Your task to perform on an android device: turn off notifications in google photos Image 0: 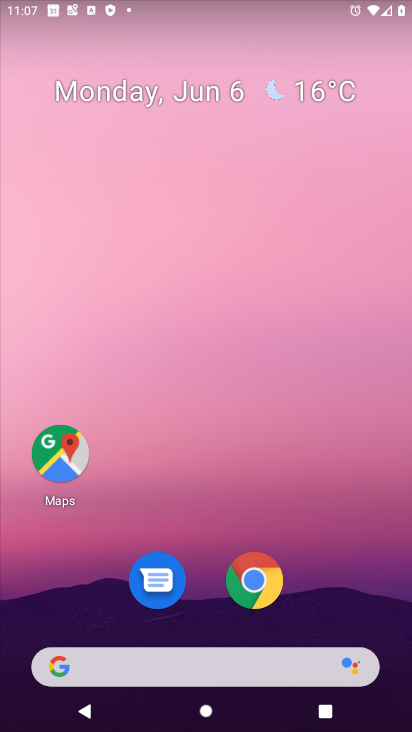
Step 0: drag from (305, 603) to (214, 2)
Your task to perform on an android device: turn off notifications in google photos Image 1: 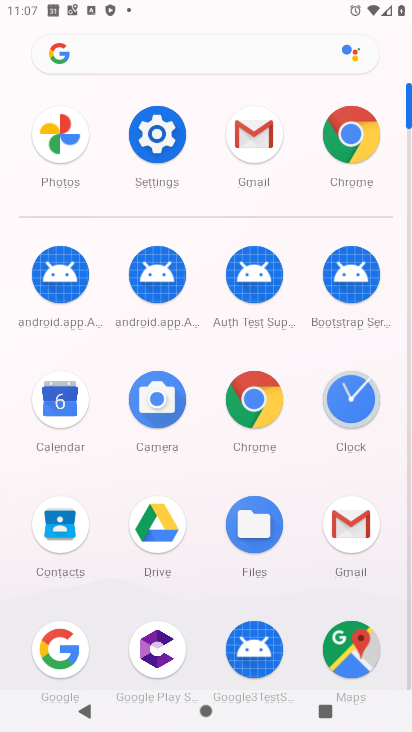
Step 1: click (68, 140)
Your task to perform on an android device: turn off notifications in google photos Image 2: 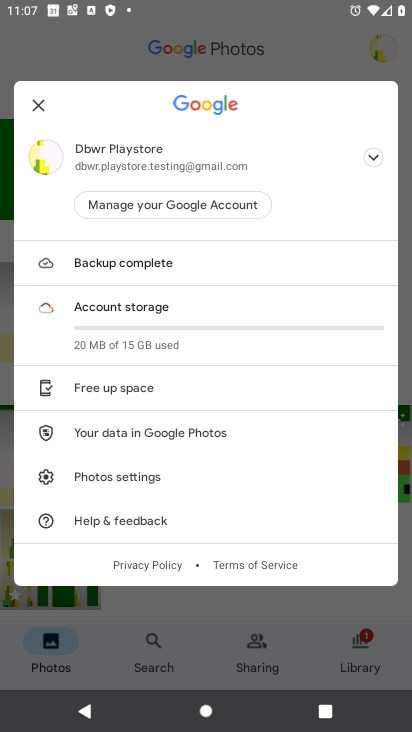
Step 2: click (139, 484)
Your task to perform on an android device: turn off notifications in google photos Image 3: 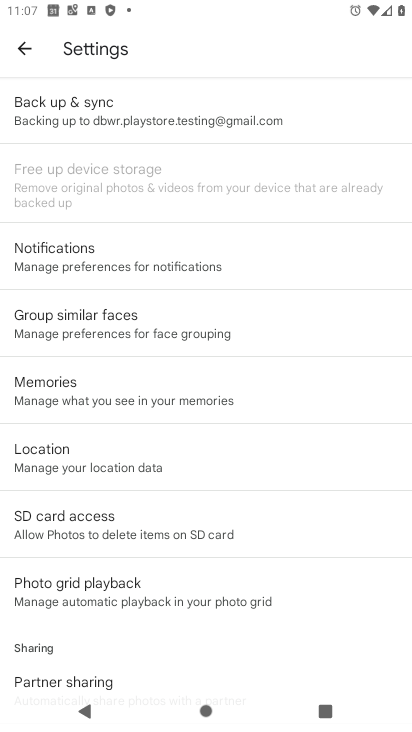
Step 3: click (70, 271)
Your task to perform on an android device: turn off notifications in google photos Image 4: 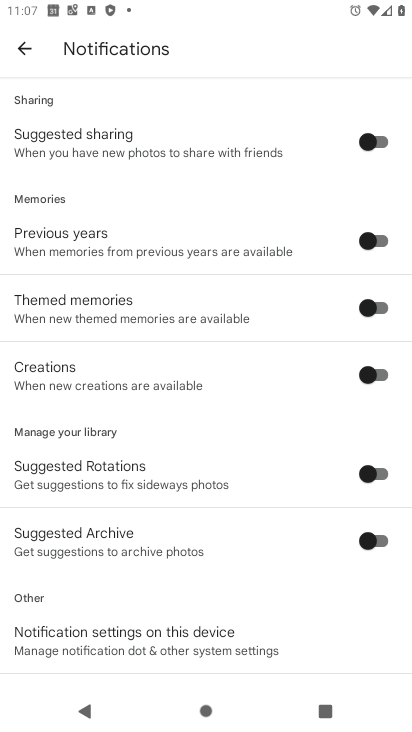
Step 4: drag from (150, 541) to (172, 150)
Your task to perform on an android device: turn off notifications in google photos Image 5: 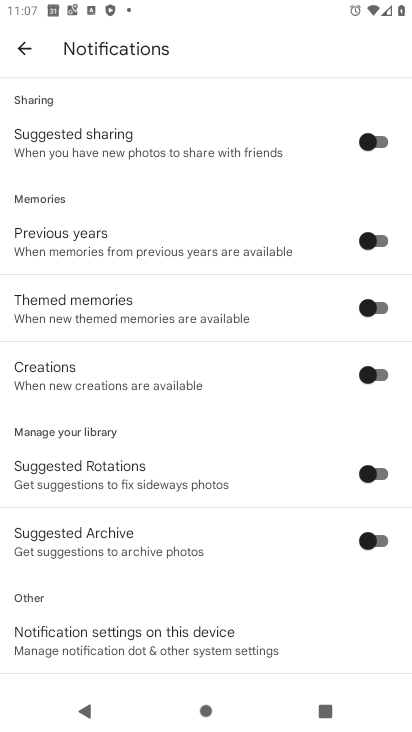
Step 5: click (107, 637)
Your task to perform on an android device: turn off notifications in google photos Image 6: 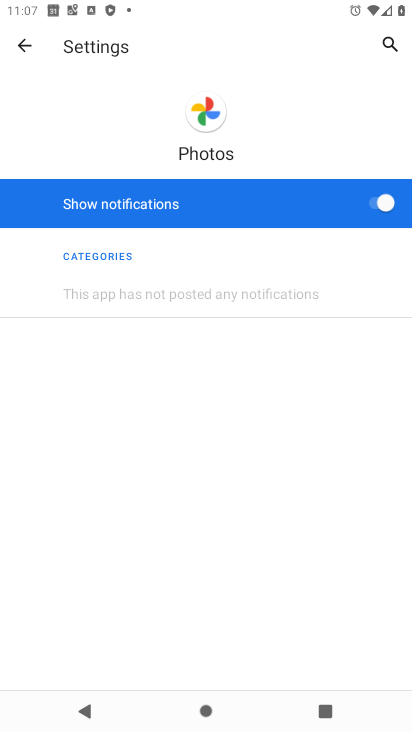
Step 6: click (364, 208)
Your task to perform on an android device: turn off notifications in google photos Image 7: 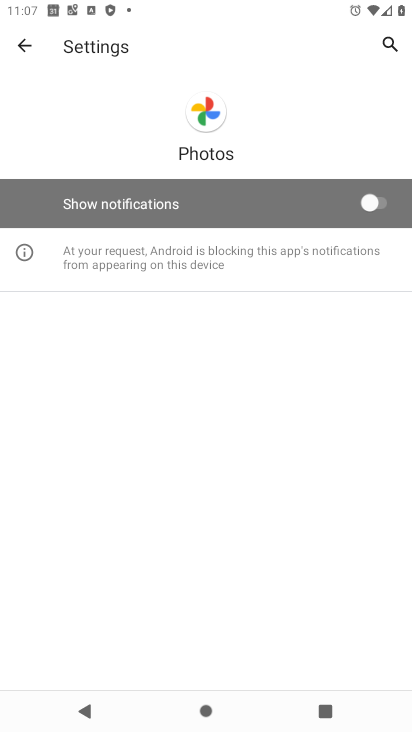
Step 7: task complete